Your task to perform on an android device: Go to Maps Image 0: 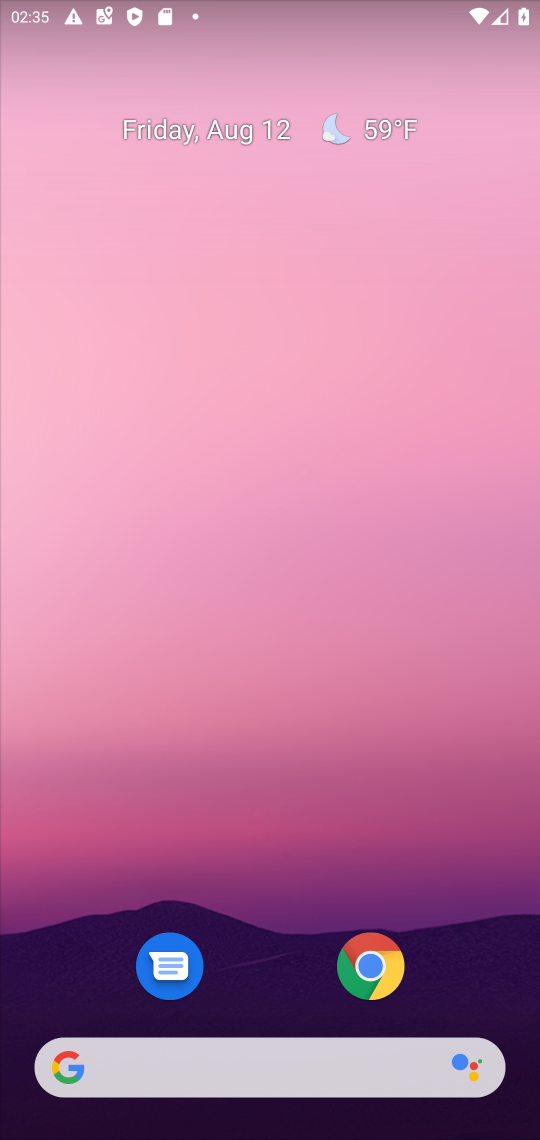
Step 0: drag from (249, 940) to (331, 92)
Your task to perform on an android device: Go to Maps Image 1: 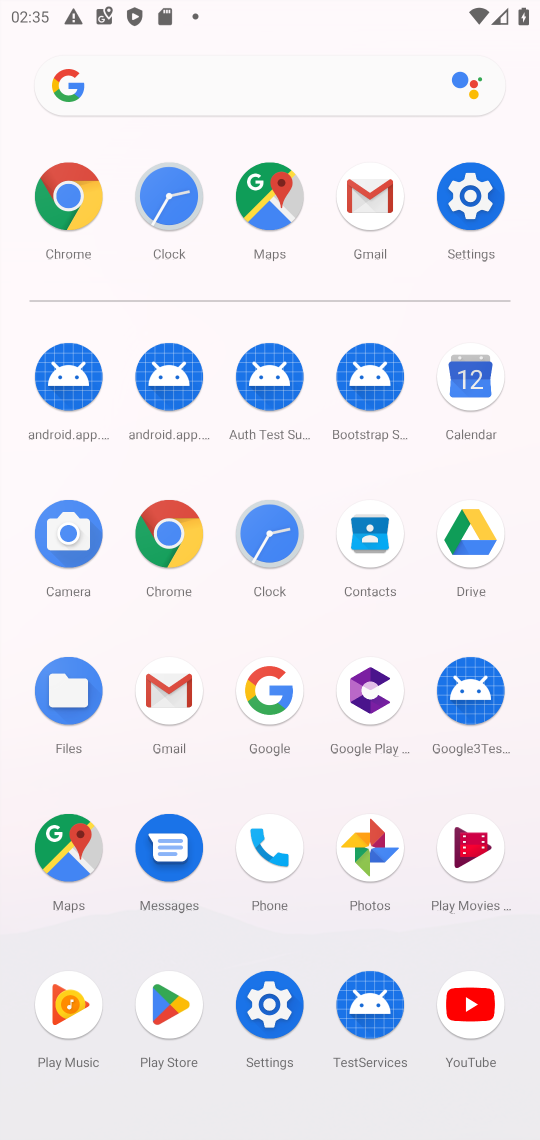
Step 1: click (59, 853)
Your task to perform on an android device: Go to Maps Image 2: 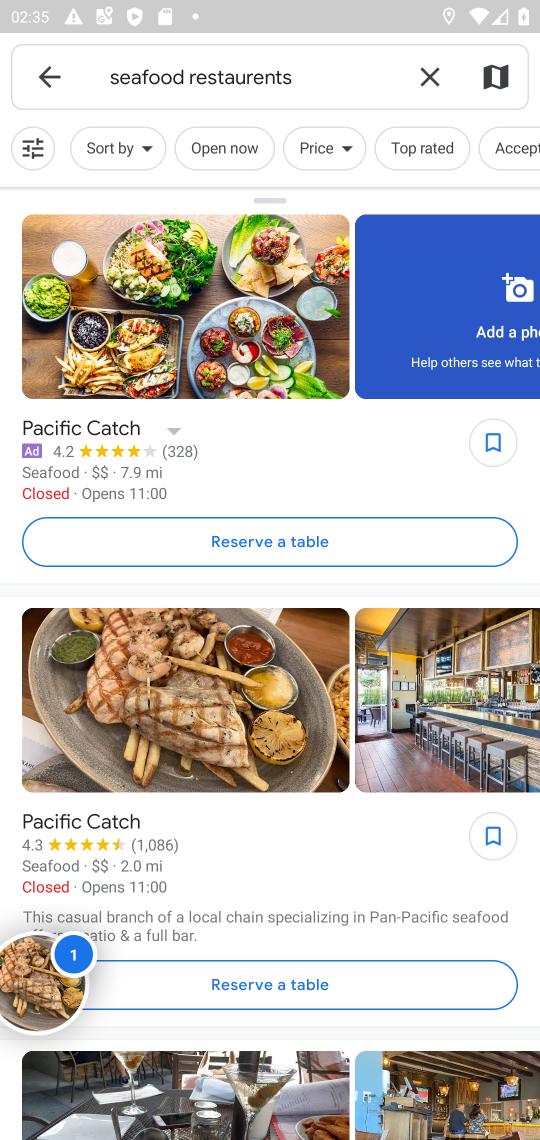
Step 2: task complete